Your task to perform on an android device: turn off picture-in-picture Image 0: 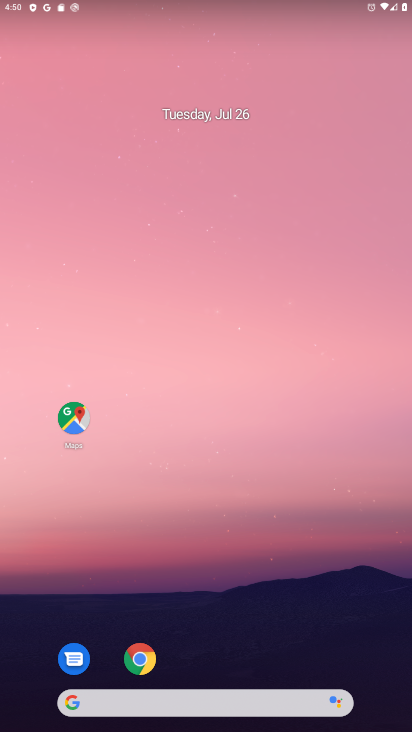
Step 0: press home button
Your task to perform on an android device: turn off picture-in-picture Image 1: 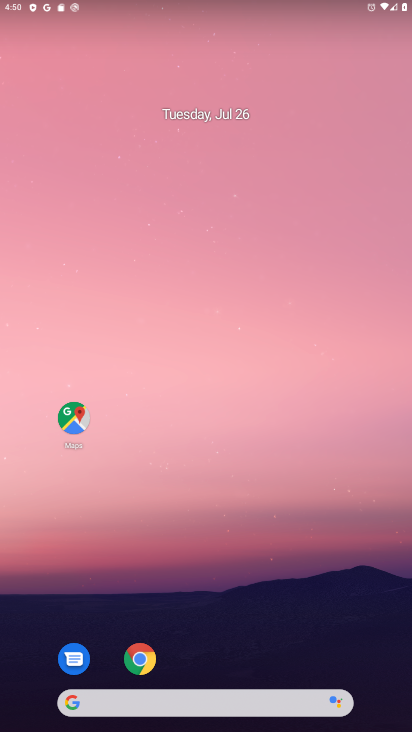
Step 1: click (139, 657)
Your task to perform on an android device: turn off picture-in-picture Image 2: 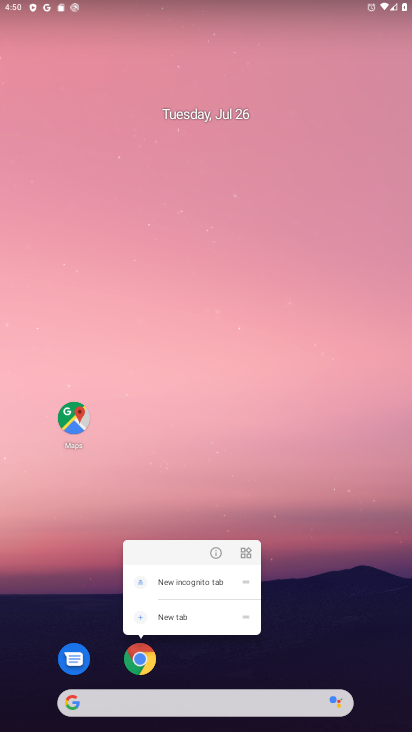
Step 2: click (216, 552)
Your task to perform on an android device: turn off picture-in-picture Image 3: 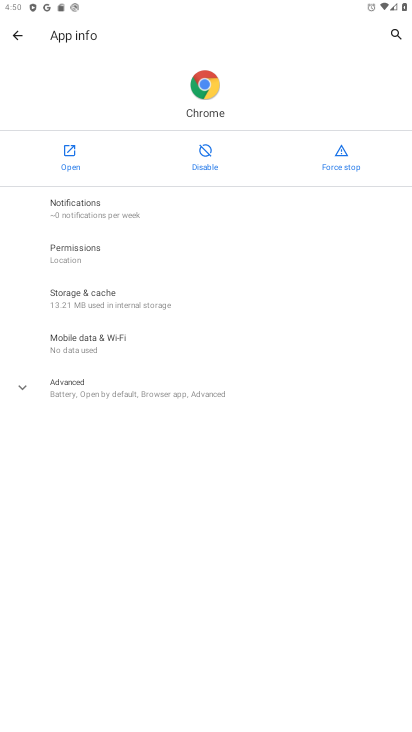
Step 3: click (27, 386)
Your task to perform on an android device: turn off picture-in-picture Image 4: 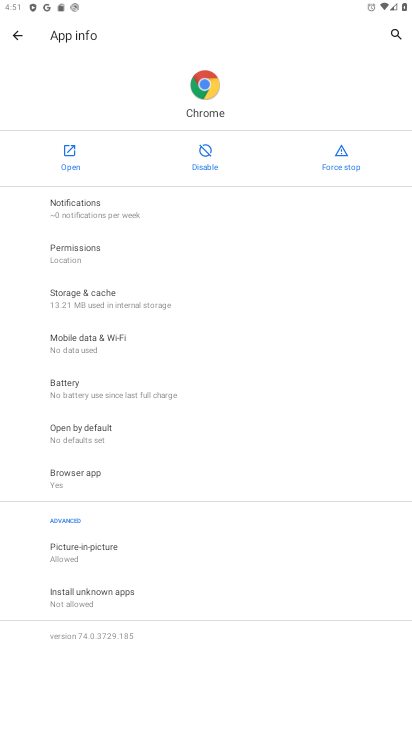
Step 4: click (104, 552)
Your task to perform on an android device: turn off picture-in-picture Image 5: 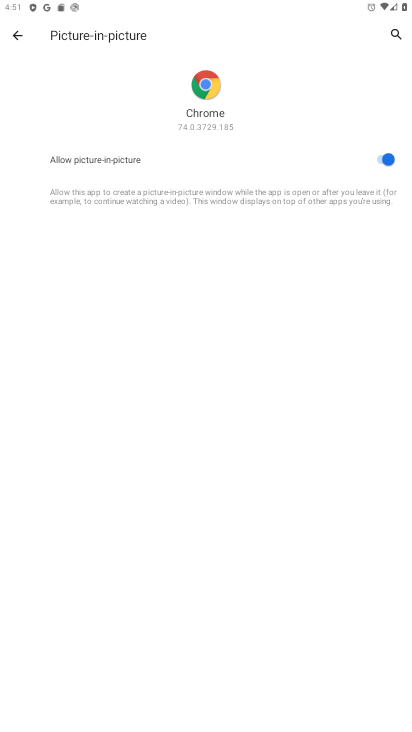
Step 5: click (382, 156)
Your task to perform on an android device: turn off picture-in-picture Image 6: 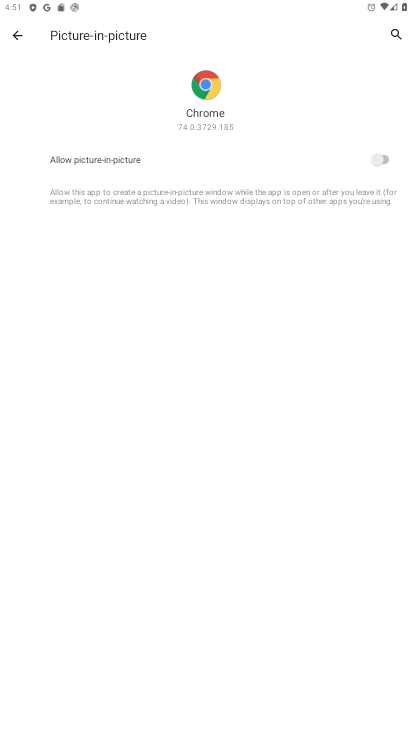
Step 6: task complete